Your task to perform on an android device: Play the new Drake video on YouTube Image 0: 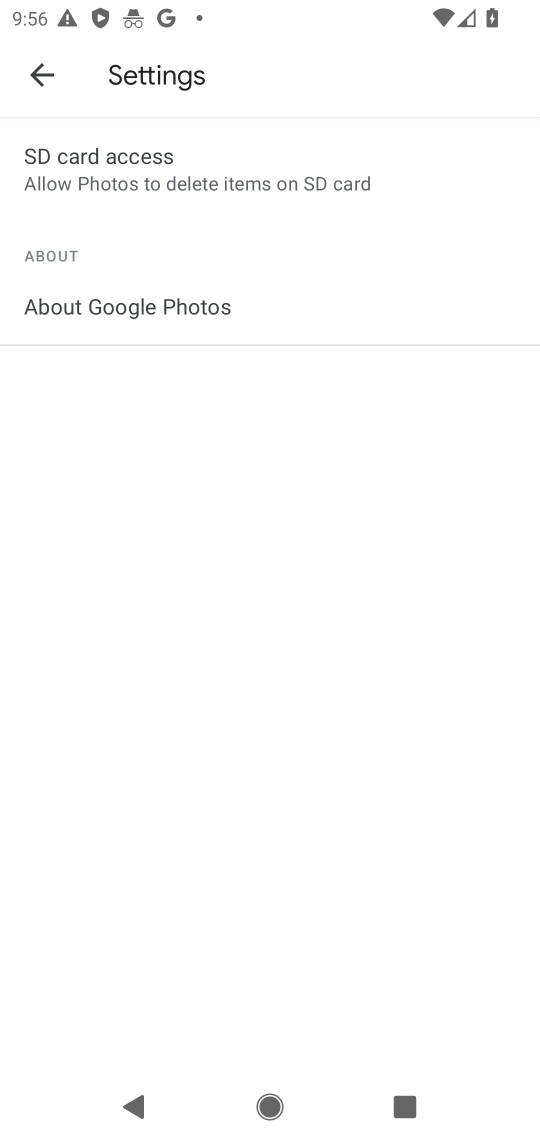
Step 0: press home button
Your task to perform on an android device: Play the new Drake video on YouTube Image 1: 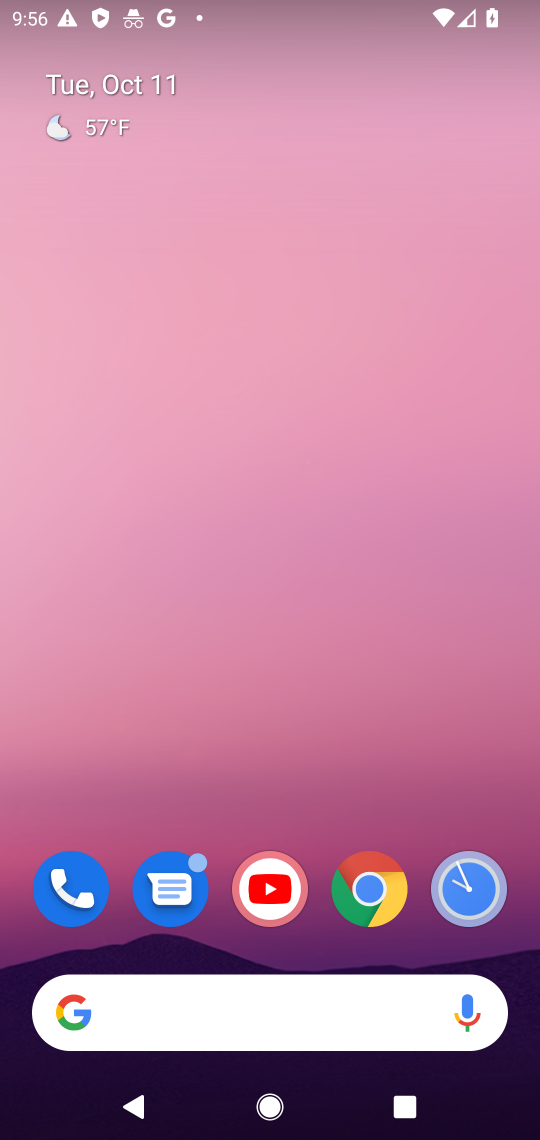
Step 1: click (265, 911)
Your task to perform on an android device: Play the new Drake video on YouTube Image 2: 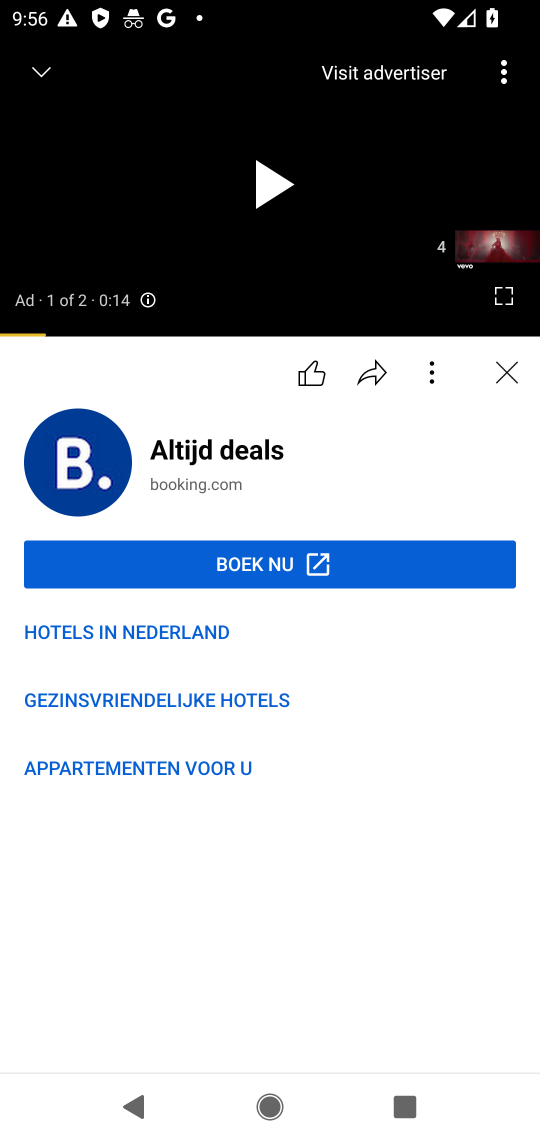
Step 2: click (50, 76)
Your task to perform on an android device: Play the new Drake video on YouTube Image 3: 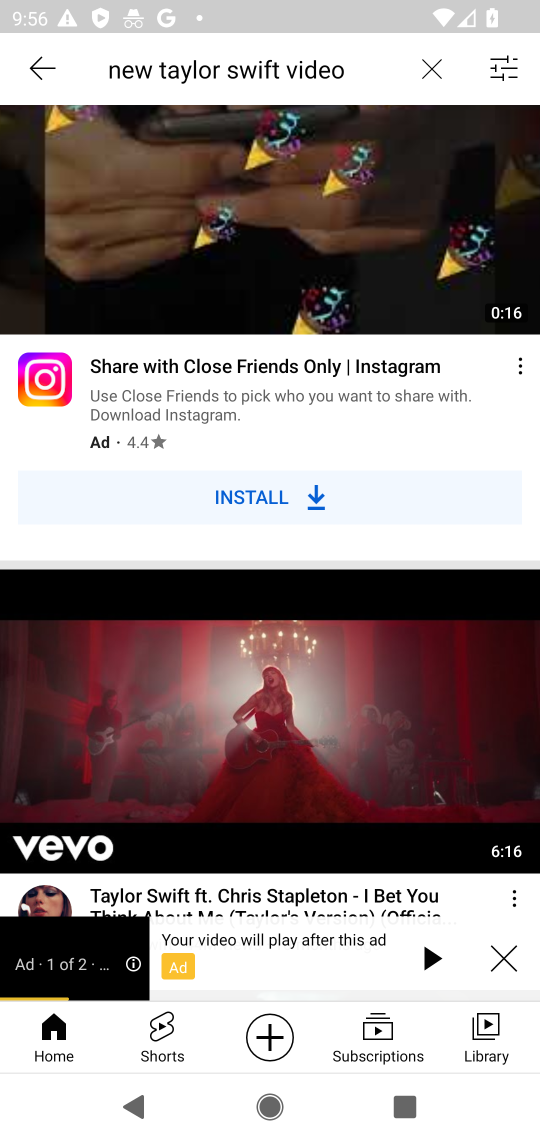
Step 3: click (426, 76)
Your task to perform on an android device: Play the new Drake video on YouTube Image 4: 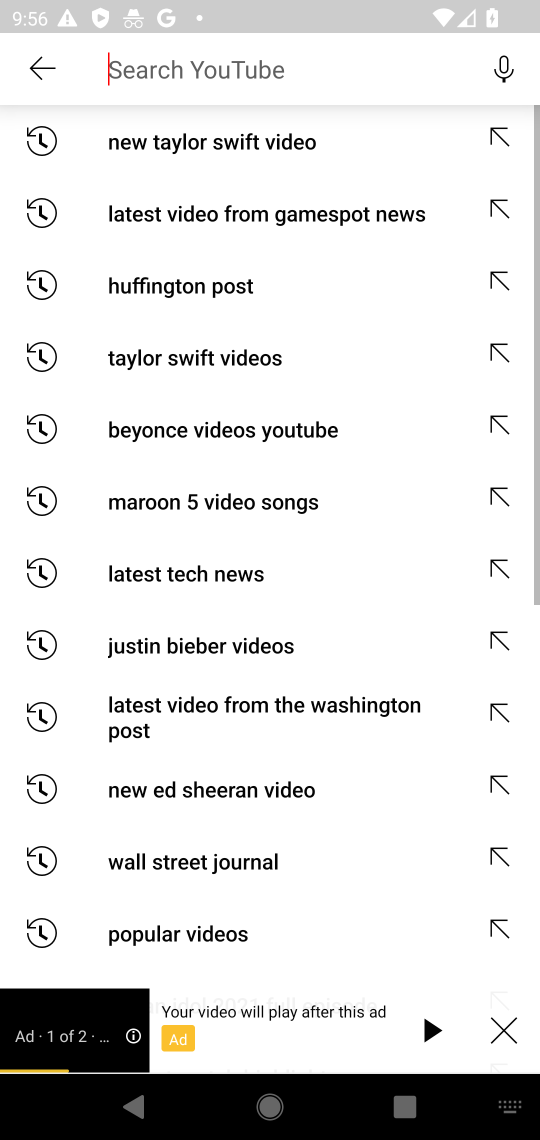
Step 4: click (134, 59)
Your task to perform on an android device: Play the new Drake video on YouTube Image 5: 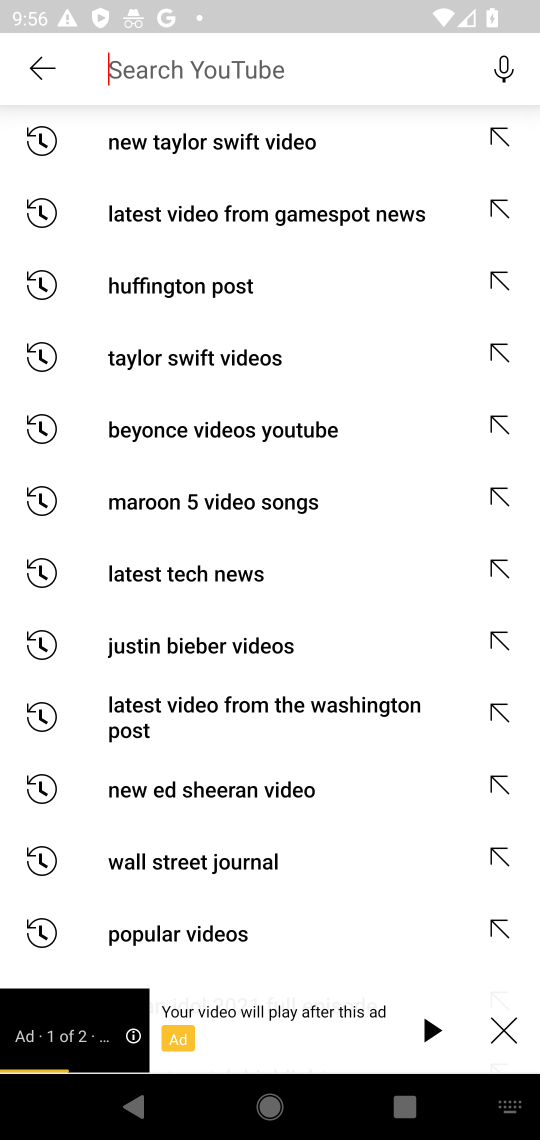
Step 5: type " new Drake video"
Your task to perform on an android device: Play the new Drake video on YouTube Image 6: 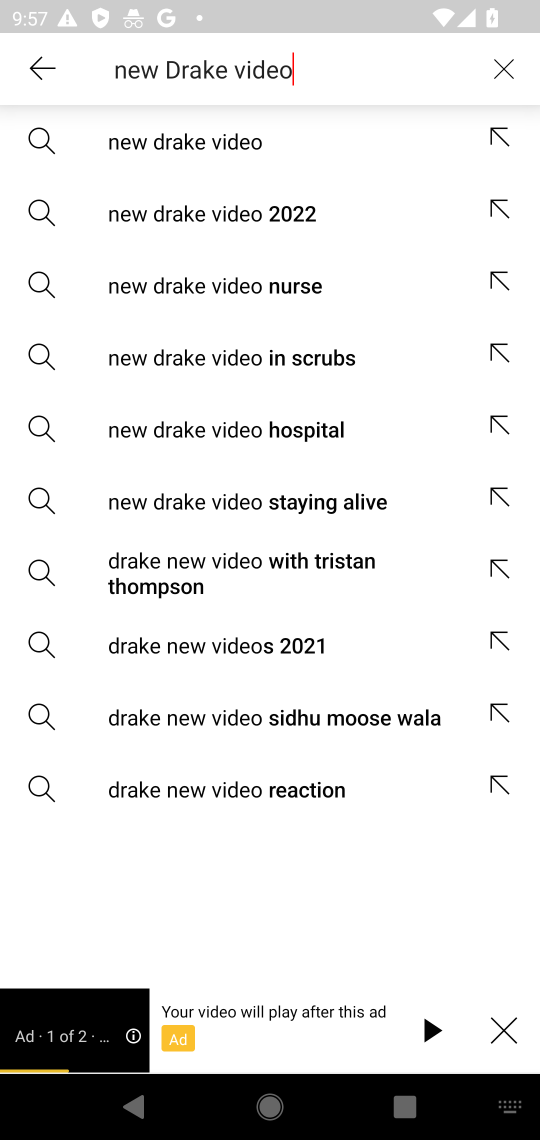
Step 6: click (188, 131)
Your task to perform on an android device: Play the new Drake video on YouTube Image 7: 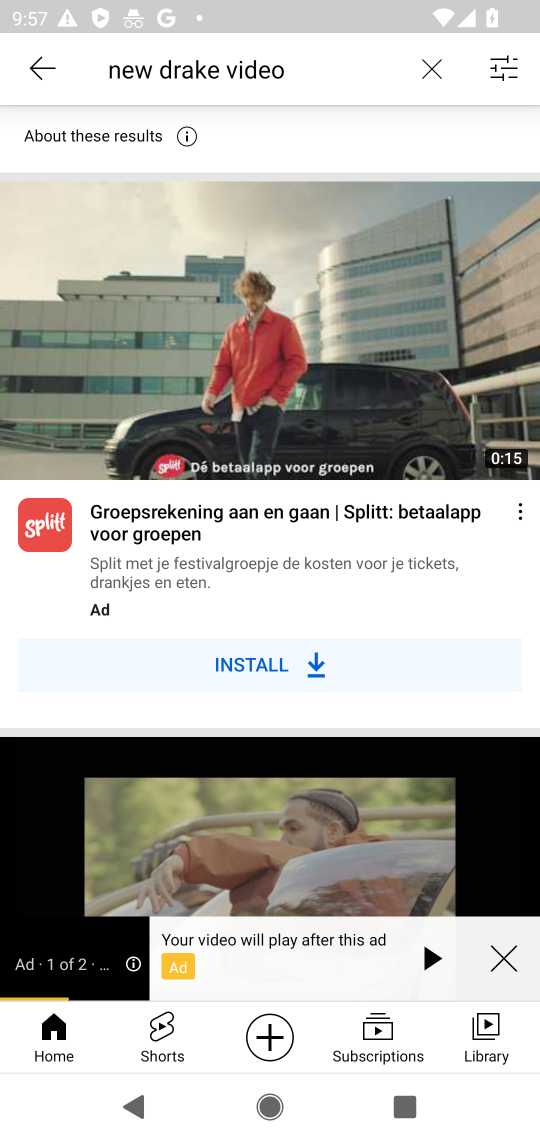
Step 7: drag from (287, 828) to (409, 322)
Your task to perform on an android device: Play the new Drake video on YouTube Image 8: 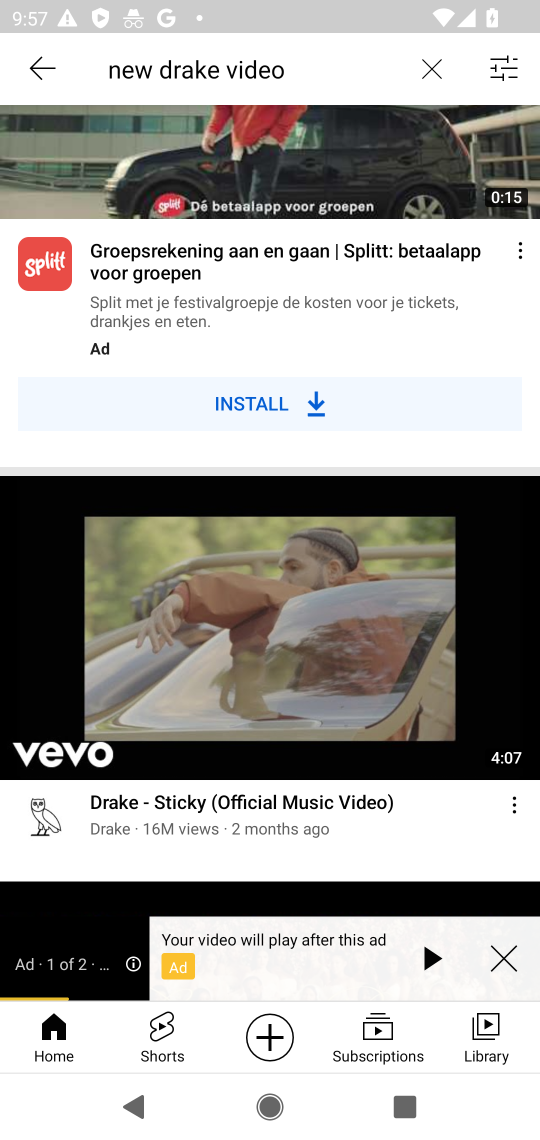
Step 8: click (268, 645)
Your task to perform on an android device: Play the new Drake video on YouTube Image 9: 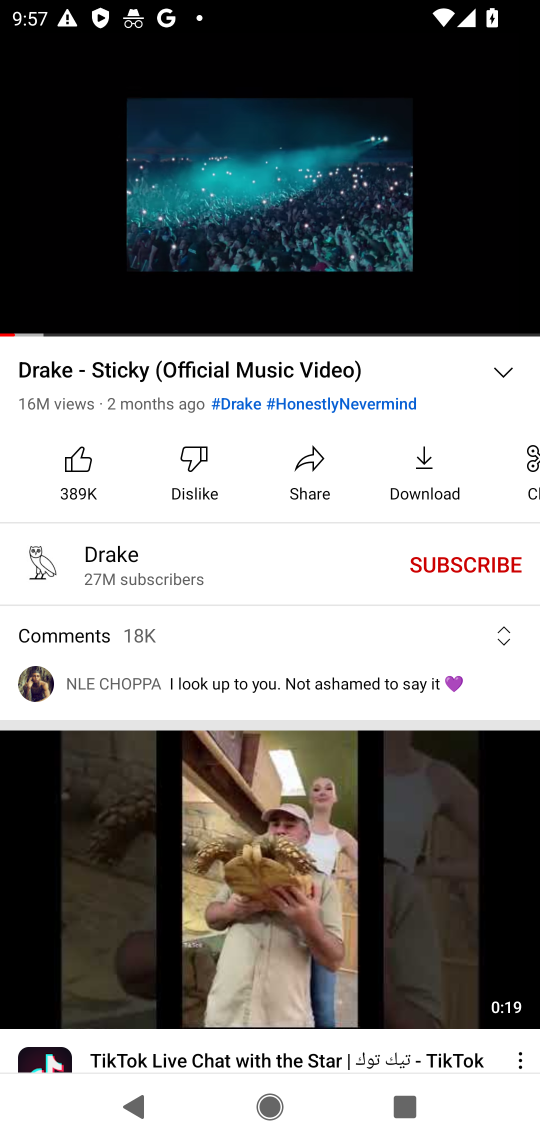
Step 9: click (256, 187)
Your task to perform on an android device: Play the new Drake video on YouTube Image 10: 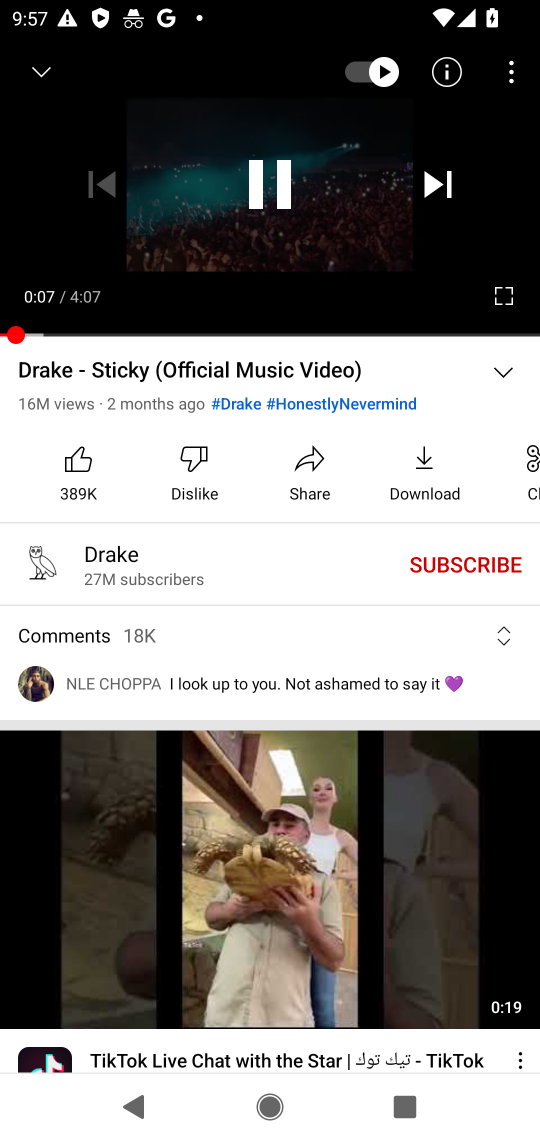
Step 10: click (256, 187)
Your task to perform on an android device: Play the new Drake video on YouTube Image 11: 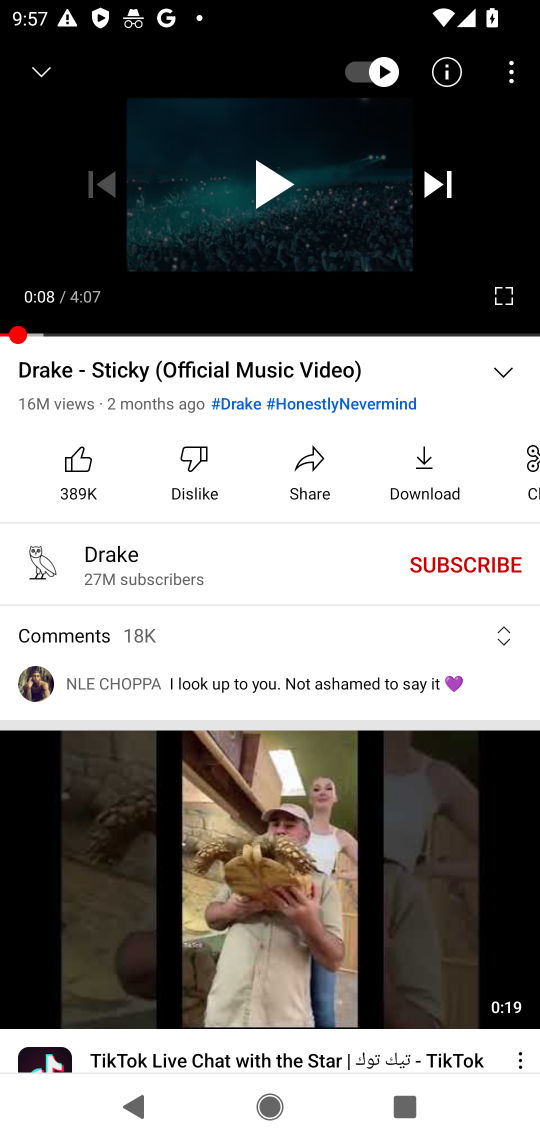
Step 11: task complete